Your task to perform on an android device: Search for Mexican restaurants on Maps Image 0: 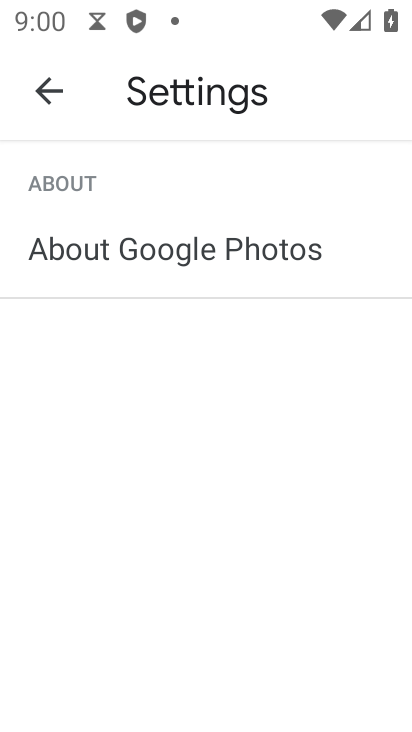
Step 0: click (42, 84)
Your task to perform on an android device: Search for Mexican restaurants on Maps Image 1: 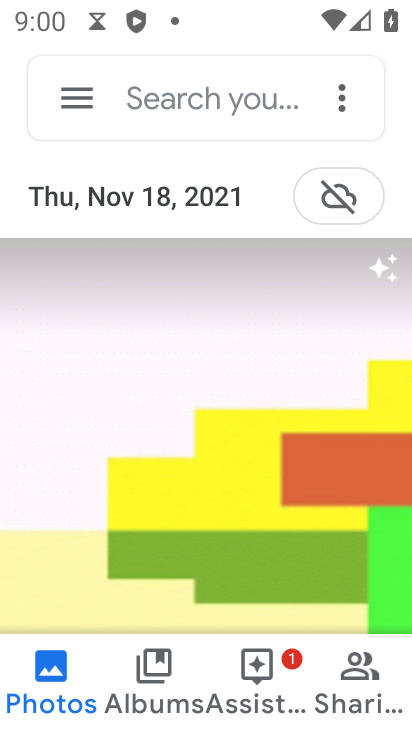
Step 1: click (134, 100)
Your task to perform on an android device: Search for Mexican restaurants on Maps Image 2: 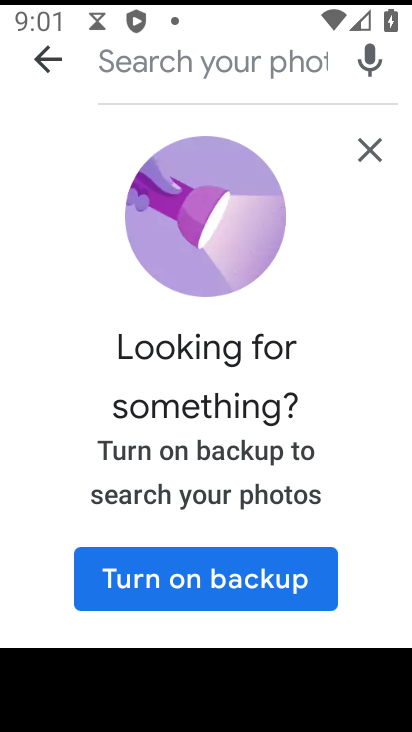
Step 2: type "mexican restaurants"
Your task to perform on an android device: Search for Mexican restaurants on Maps Image 3: 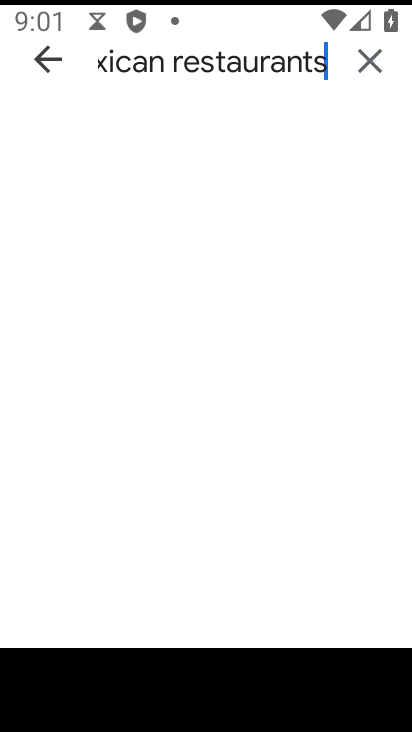
Step 3: click (318, 74)
Your task to perform on an android device: Search for Mexican restaurants on Maps Image 4: 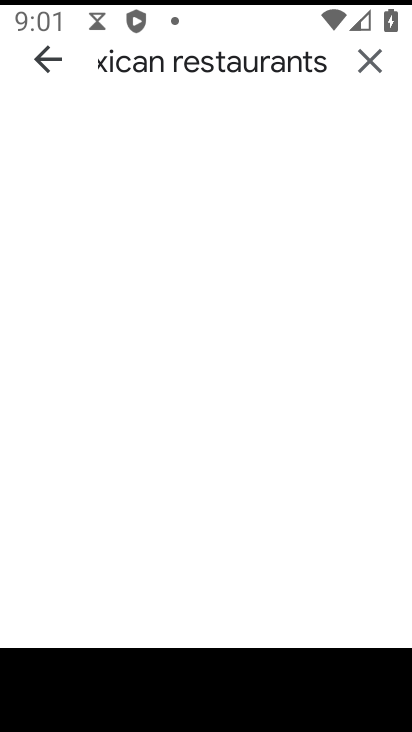
Step 4: click (328, 66)
Your task to perform on an android device: Search for Mexican restaurants on Maps Image 5: 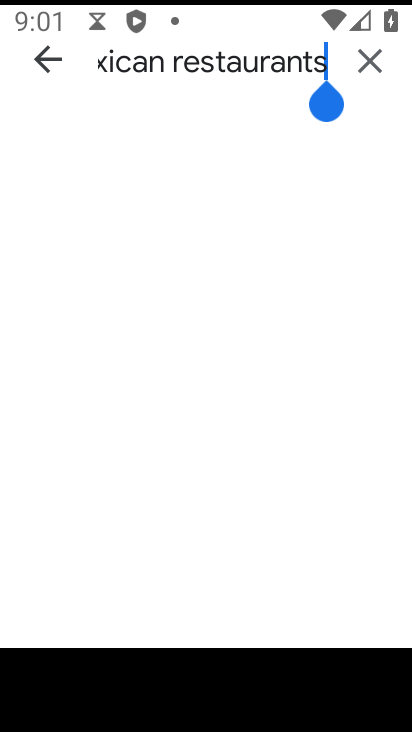
Step 5: click (328, 66)
Your task to perform on an android device: Search for Mexican restaurants on Maps Image 6: 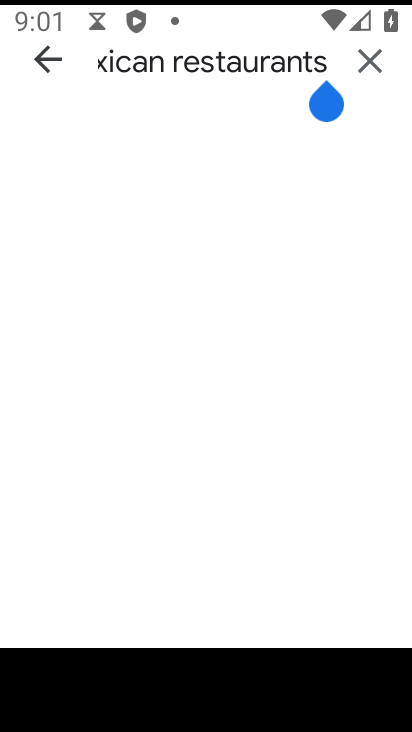
Step 6: task complete